Your task to perform on an android device: Do I have any events tomorrow? Image 0: 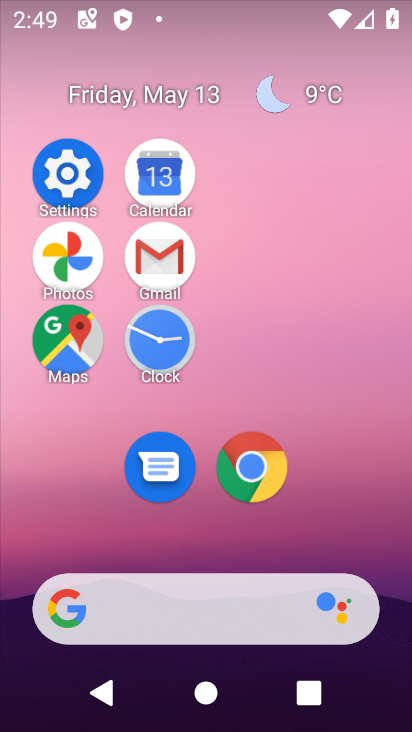
Step 0: click (155, 190)
Your task to perform on an android device: Do I have any events tomorrow? Image 1: 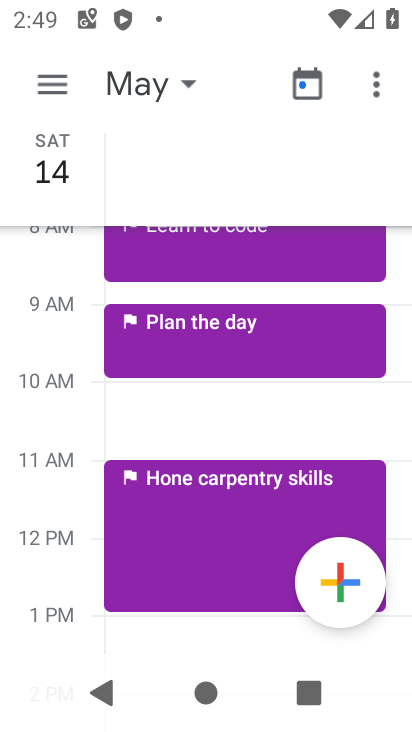
Step 1: task complete